Your task to perform on an android device: See recent photos Image 0: 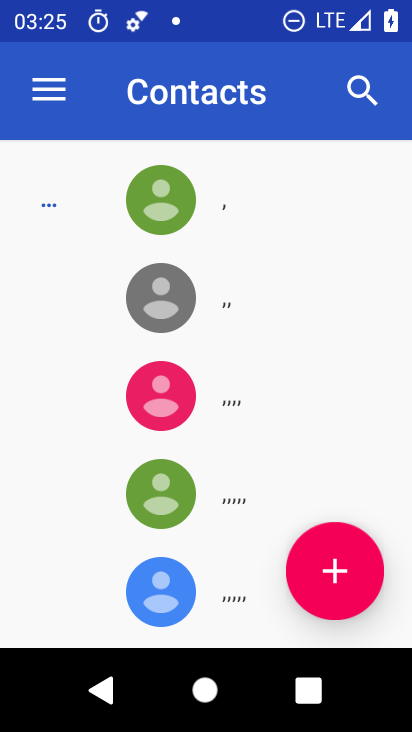
Step 0: press home button
Your task to perform on an android device: See recent photos Image 1: 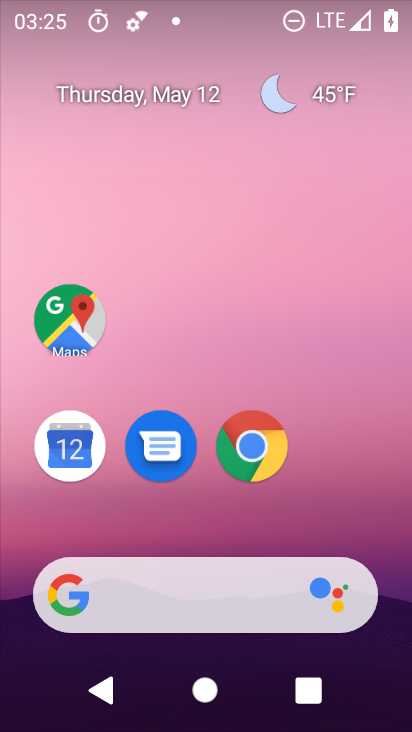
Step 1: drag from (170, 529) to (193, 251)
Your task to perform on an android device: See recent photos Image 2: 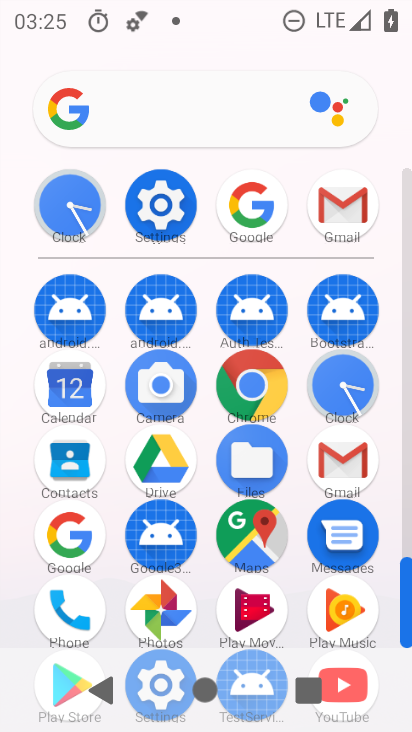
Step 2: click (142, 592)
Your task to perform on an android device: See recent photos Image 3: 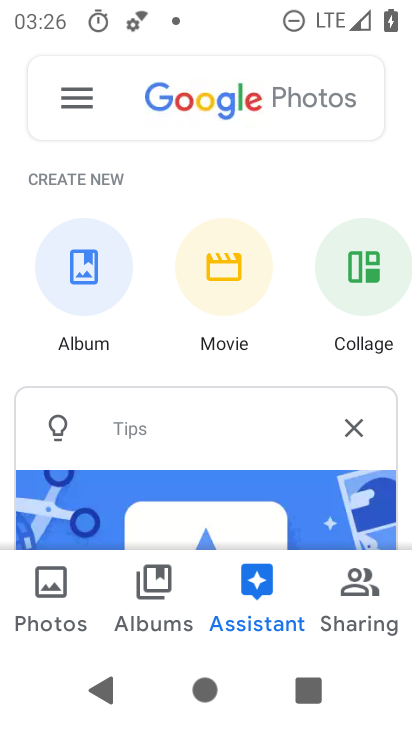
Step 3: drag from (195, 431) to (202, 219)
Your task to perform on an android device: See recent photos Image 4: 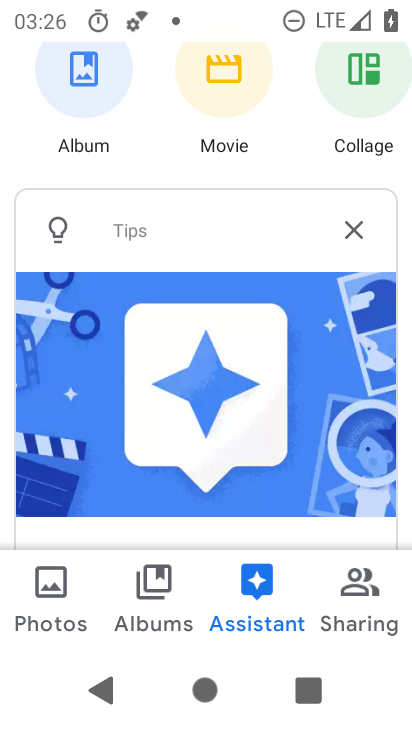
Step 4: drag from (171, 429) to (168, 247)
Your task to perform on an android device: See recent photos Image 5: 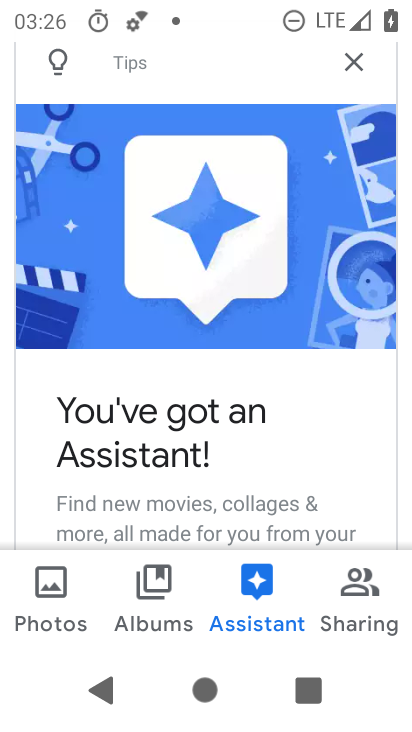
Step 5: click (51, 590)
Your task to perform on an android device: See recent photos Image 6: 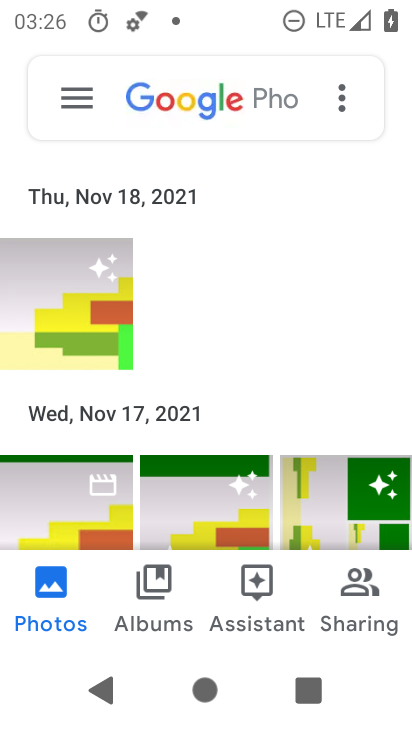
Step 6: task complete